Your task to perform on an android device: turn off location history Image 0: 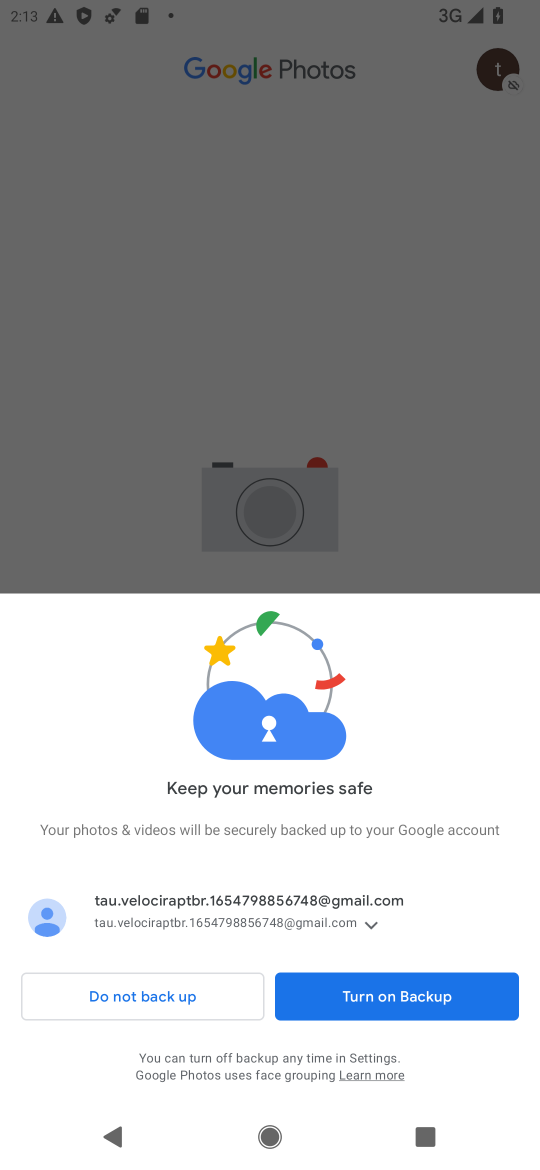
Step 0: click (156, 992)
Your task to perform on an android device: turn off location history Image 1: 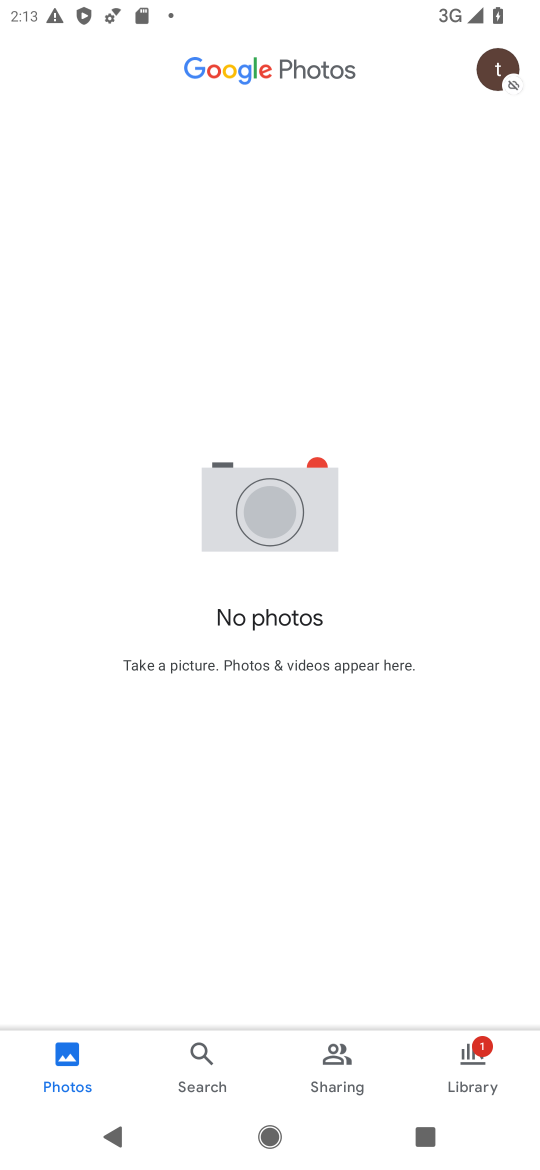
Step 1: press home button
Your task to perform on an android device: turn off location history Image 2: 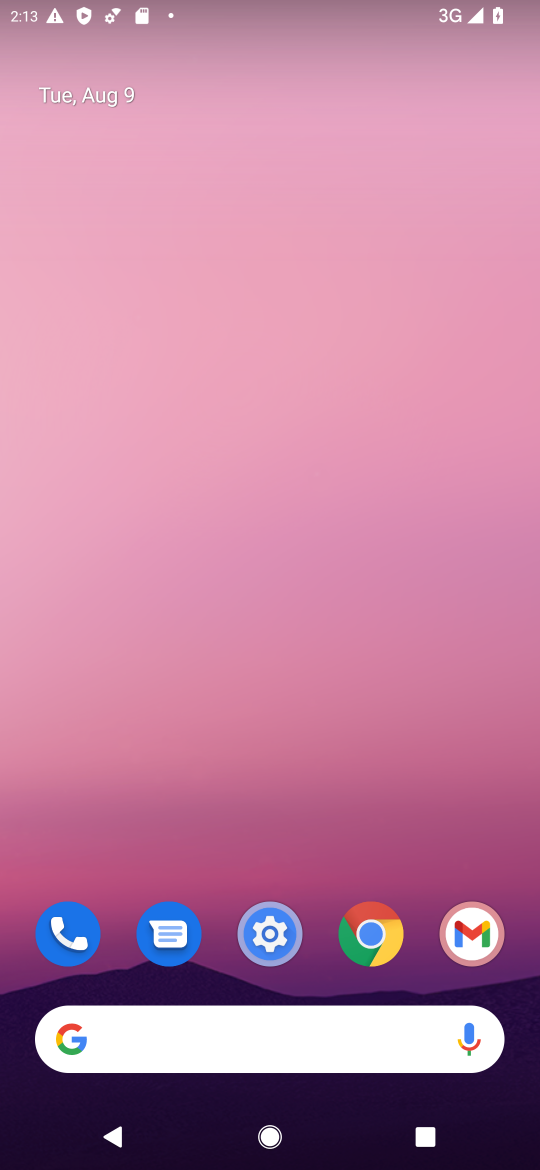
Step 2: click (255, 950)
Your task to perform on an android device: turn off location history Image 3: 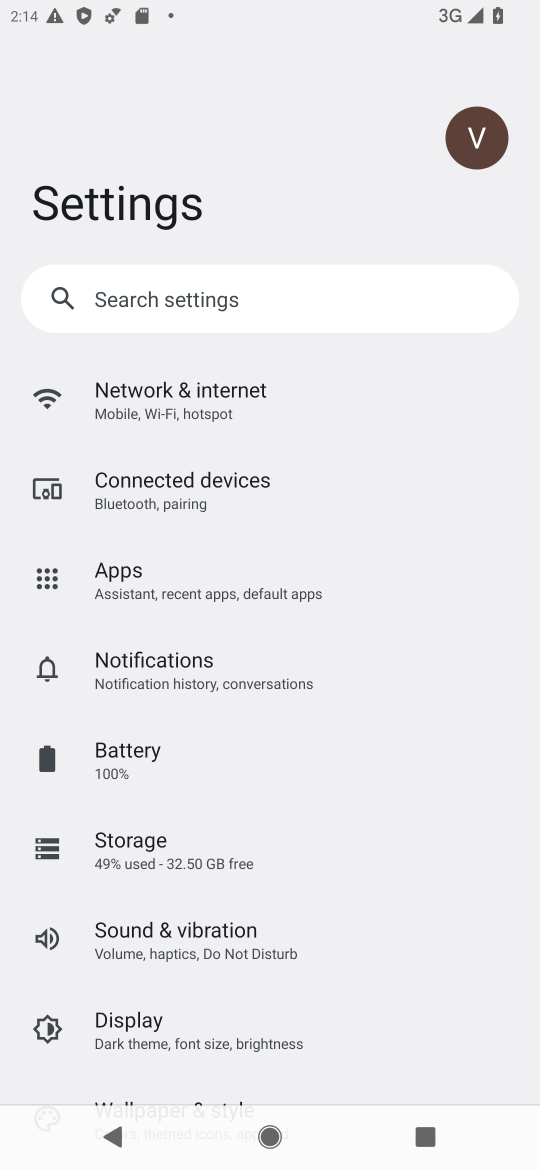
Step 3: drag from (174, 904) to (226, 432)
Your task to perform on an android device: turn off location history Image 4: 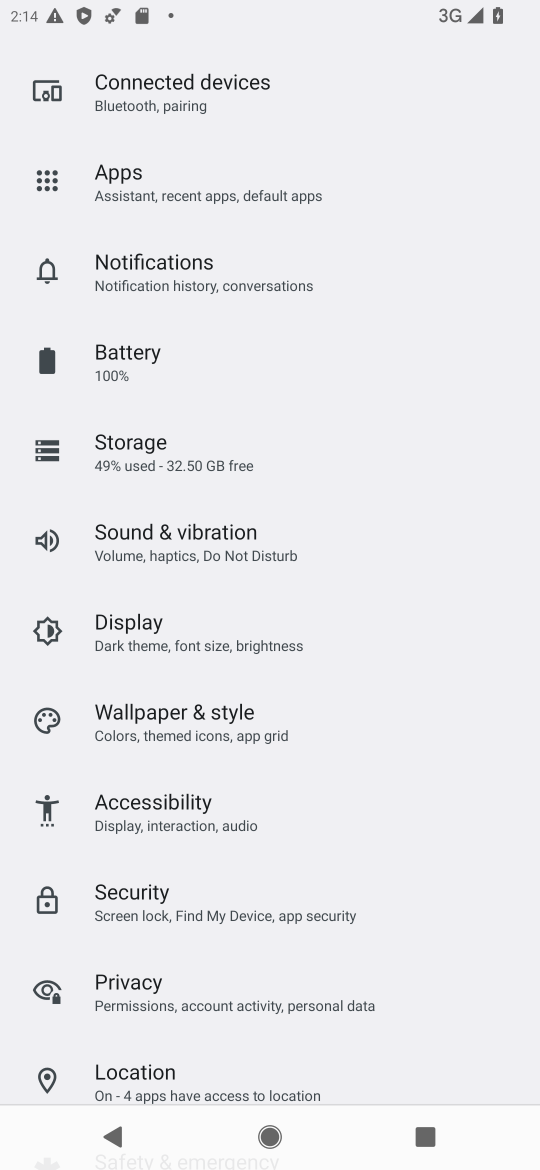
Step 4: click (60, 1071)
Your task to perform on an android device: turn off location history Image 5: 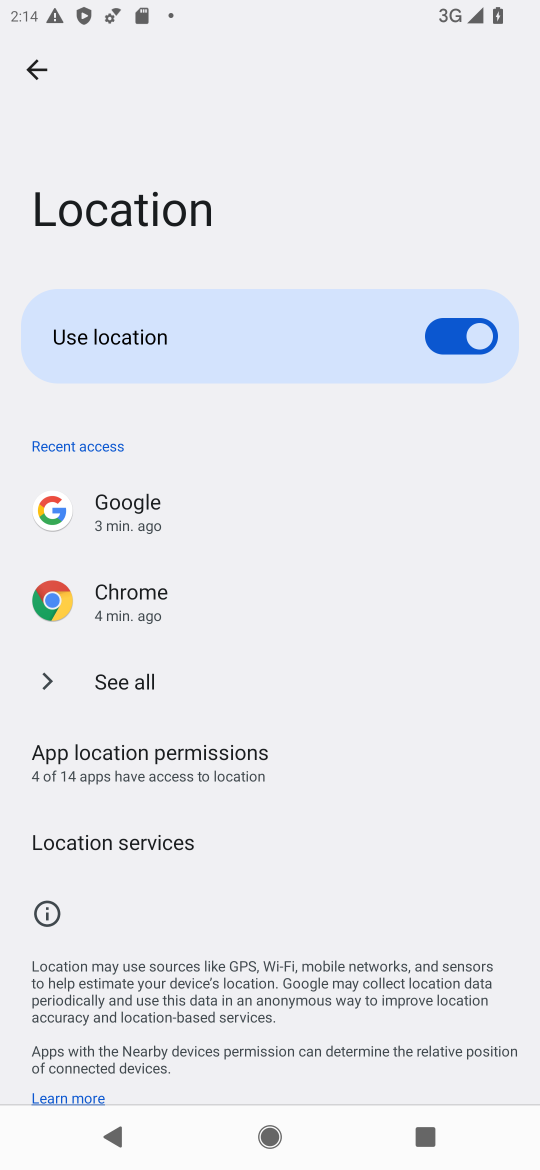
Step 5: click (451, 330)
Your task to perform on an android device: turn off location history Image 6: 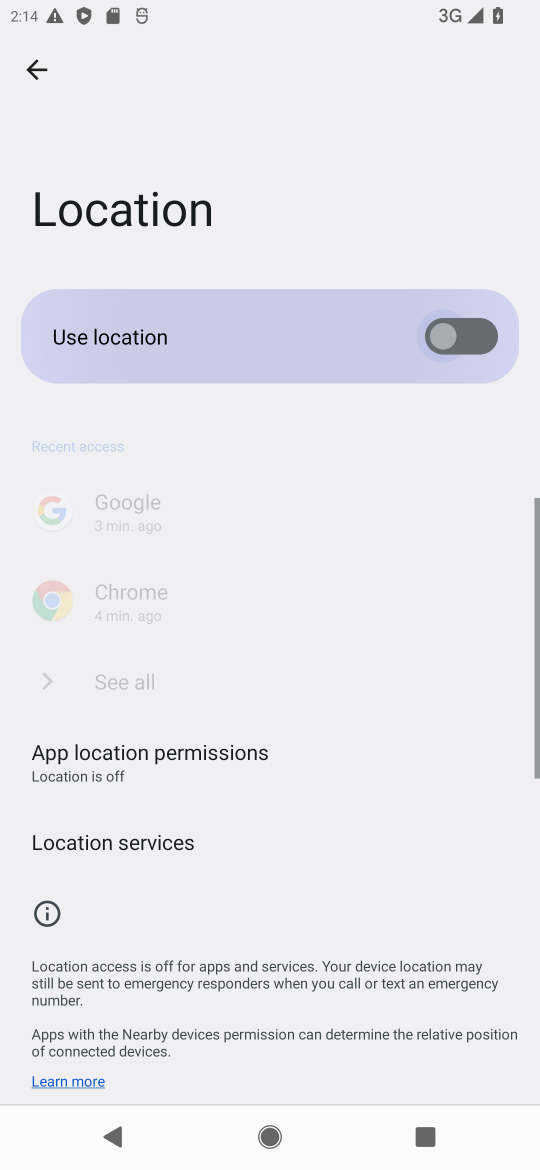
Step 6: task complete